Your task to perform on an android device: clear all cookies in the chrome app Image 0: 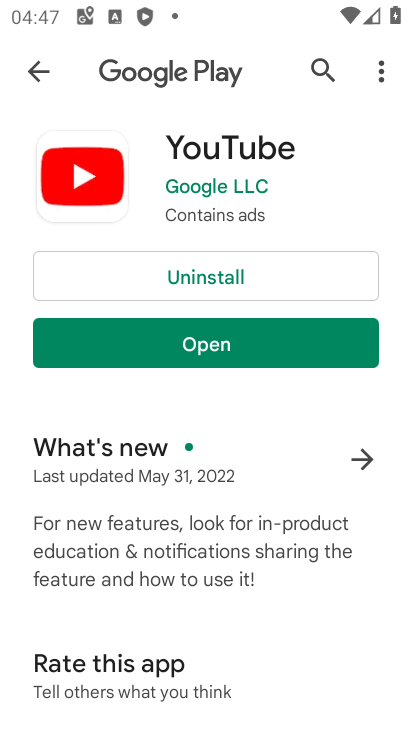
Step 0: press home button
Your task to perform on an android device: clear all cookies in the chrome app Image 1: 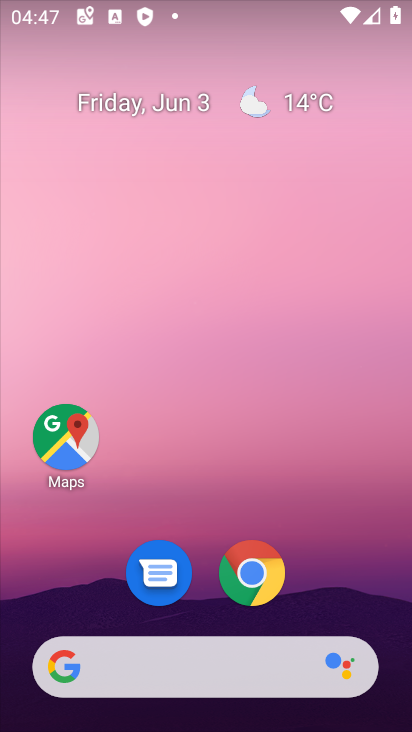
Step 1: drag from (343, 598) to (336, 83)
Your task to perform on an android device: clear all cookies in the chrome app Image 2: 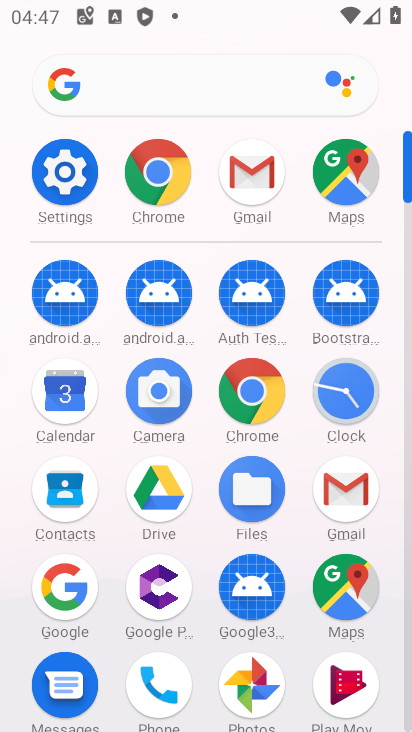
Step 2: click (140, 181)
Your task to perform on an android device: clear all cookies in the chrome app Image 3: 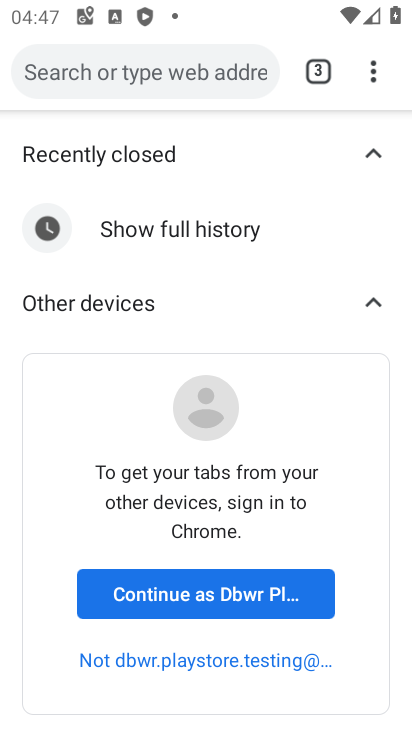
Step 3: click (362, 82)
Your task to perform on an android device: clear all cookies in the chrome app Image 4: 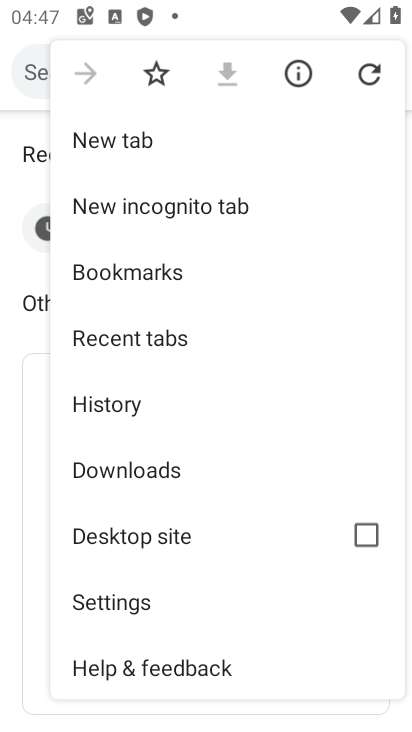
Step 4: click (134, 420)
Your task to perform on an android device: clear all cookies in the chrome app Image 5: 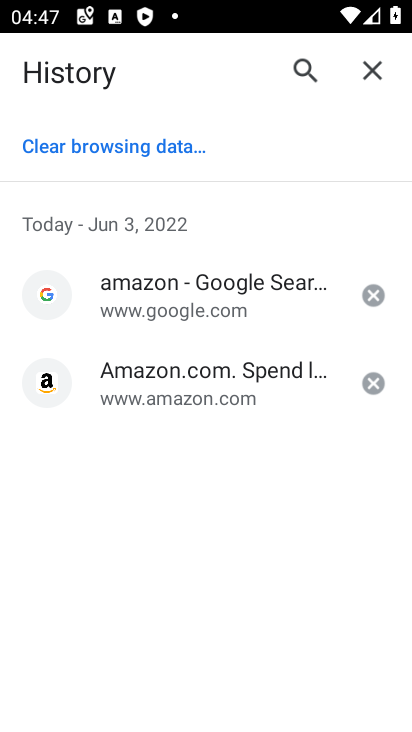
Step 5: click (148, 130)
Your task to perform on an android device: clear all cookies in the chrome app Image 6: 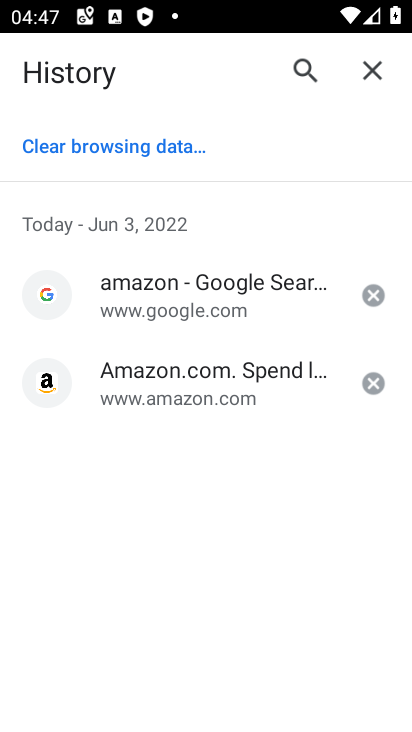
Step 6: click (134, 149)
Your task to perform on an android device: clear all cookies in the chrome app Image 7: 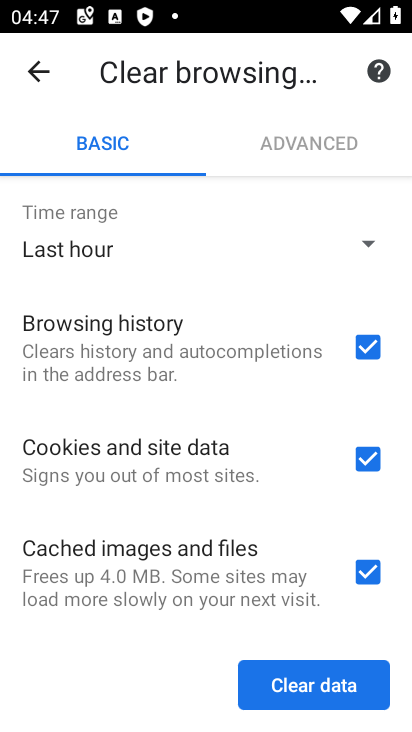
Step 7: click (307, 697)
Your task to perform on an android device: clear all cookies in the chrome app Image 8: 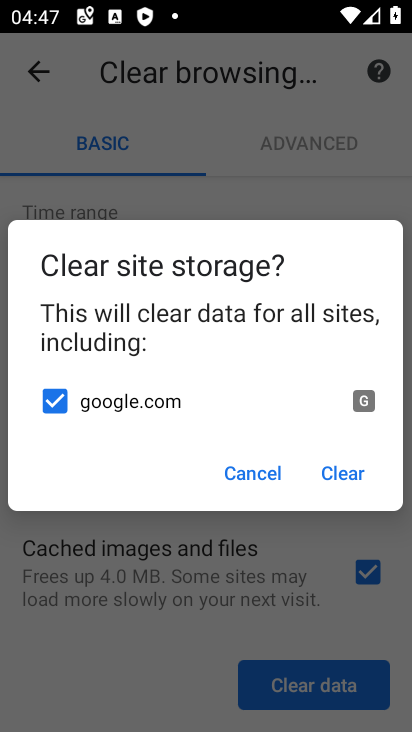
Step 8: click (354, 475)
Your task to perform on an android device: clear all cookies in the chrome app Image 9: 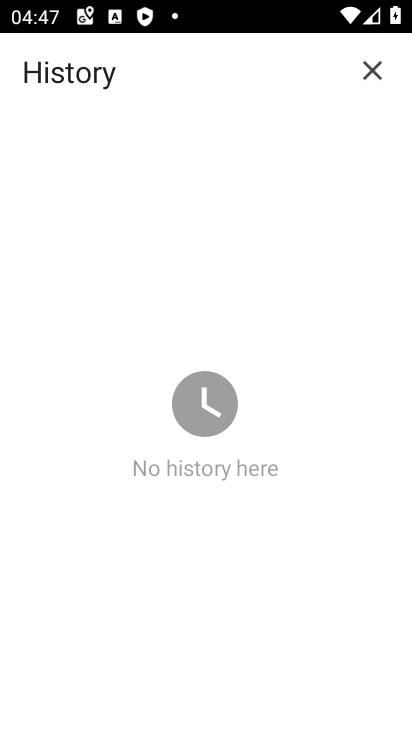
Step 9: task complete